Your task to perform on an android device: Search for "acer predator" on walmart.com, select the first entry, and add it to the cart. Image 0: 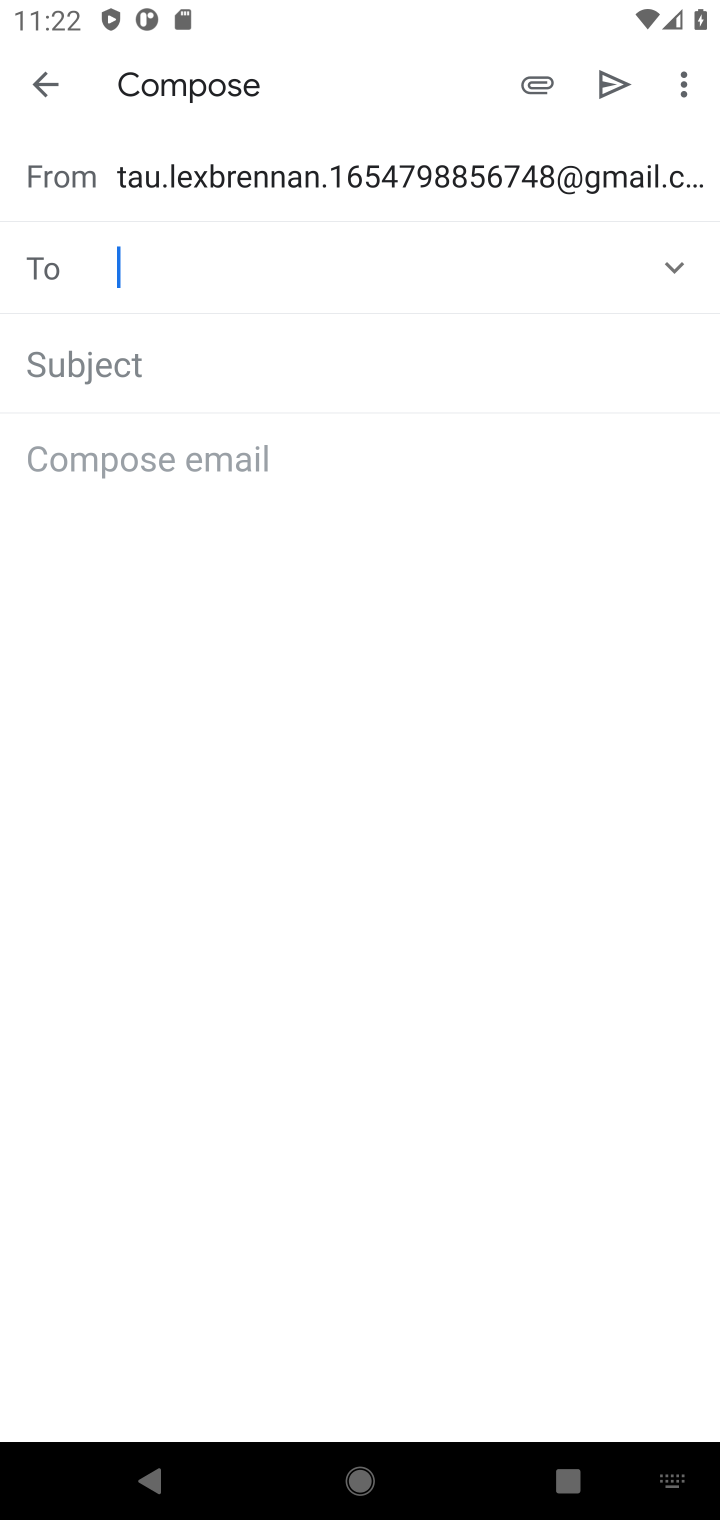
Step 0: press home button
Your task to perform on an android device: Search for "acer predator" on walmart.com, select the first entry, and add it to the cart. Image 1: 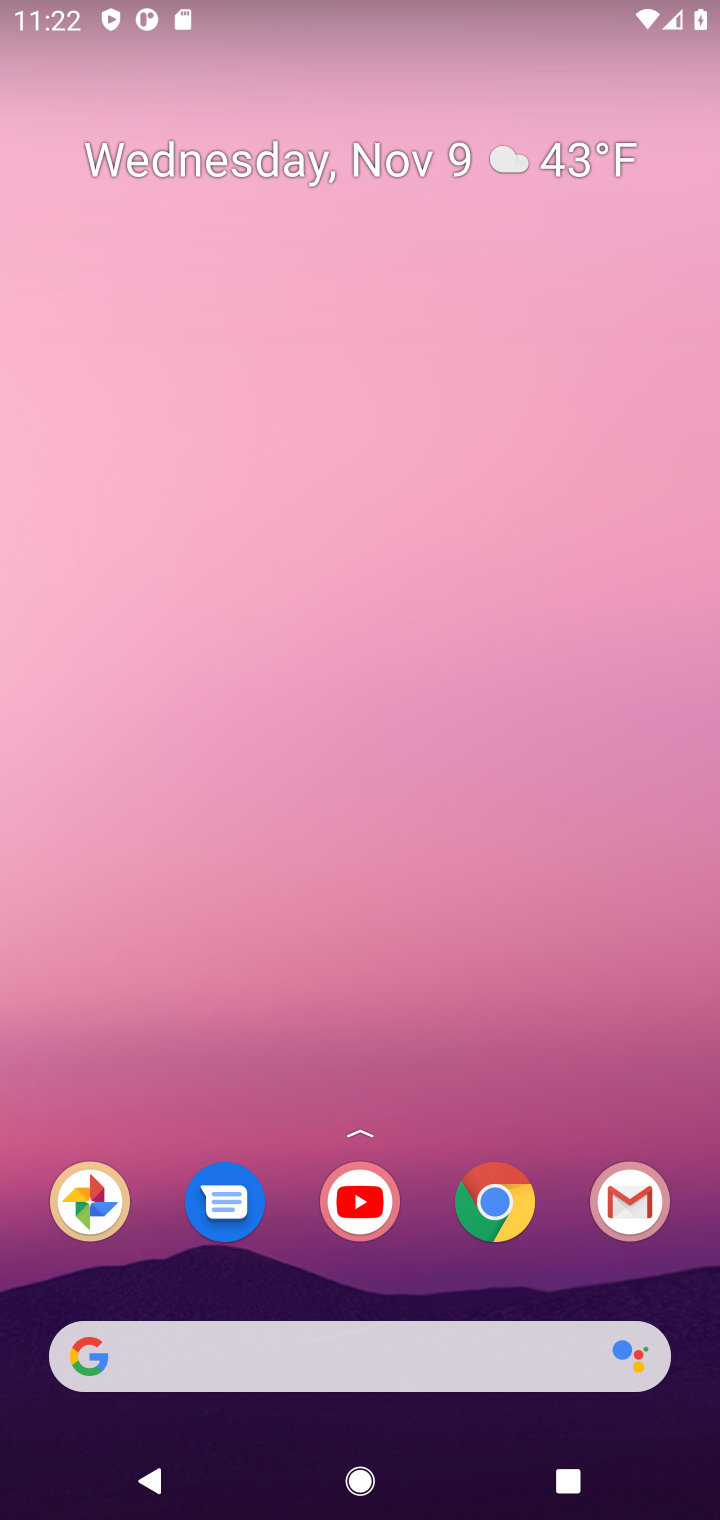
Step 1: click (476, 1197)
Your task to perform on an android device: Search for "acer predator" on walmart.com, select the first entry, and add it to the cart. Image 2: 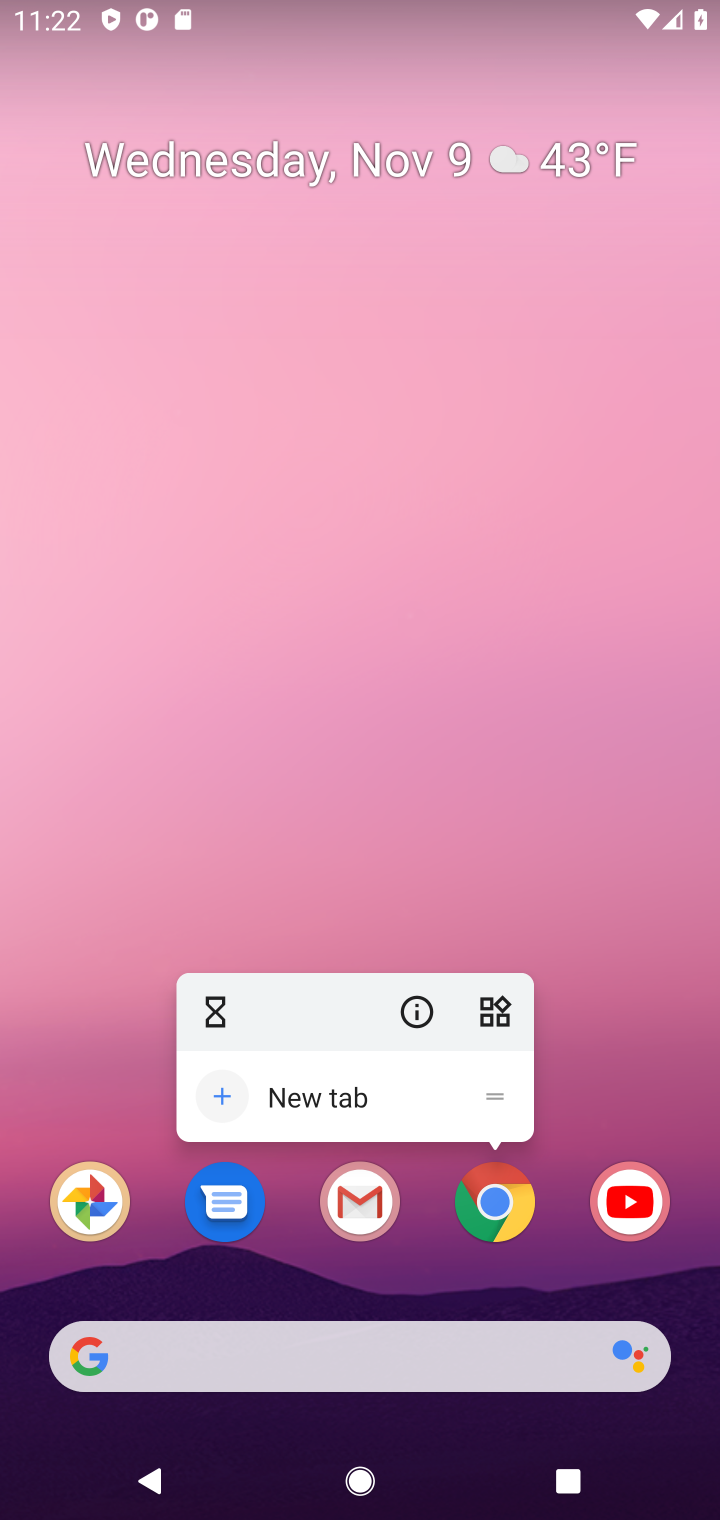
Step 2: click (476, 1197)
Your task to perform on an android device: Search for "acer predator" on walmart.com, select the first entry, and add it to the cart. Image 3: 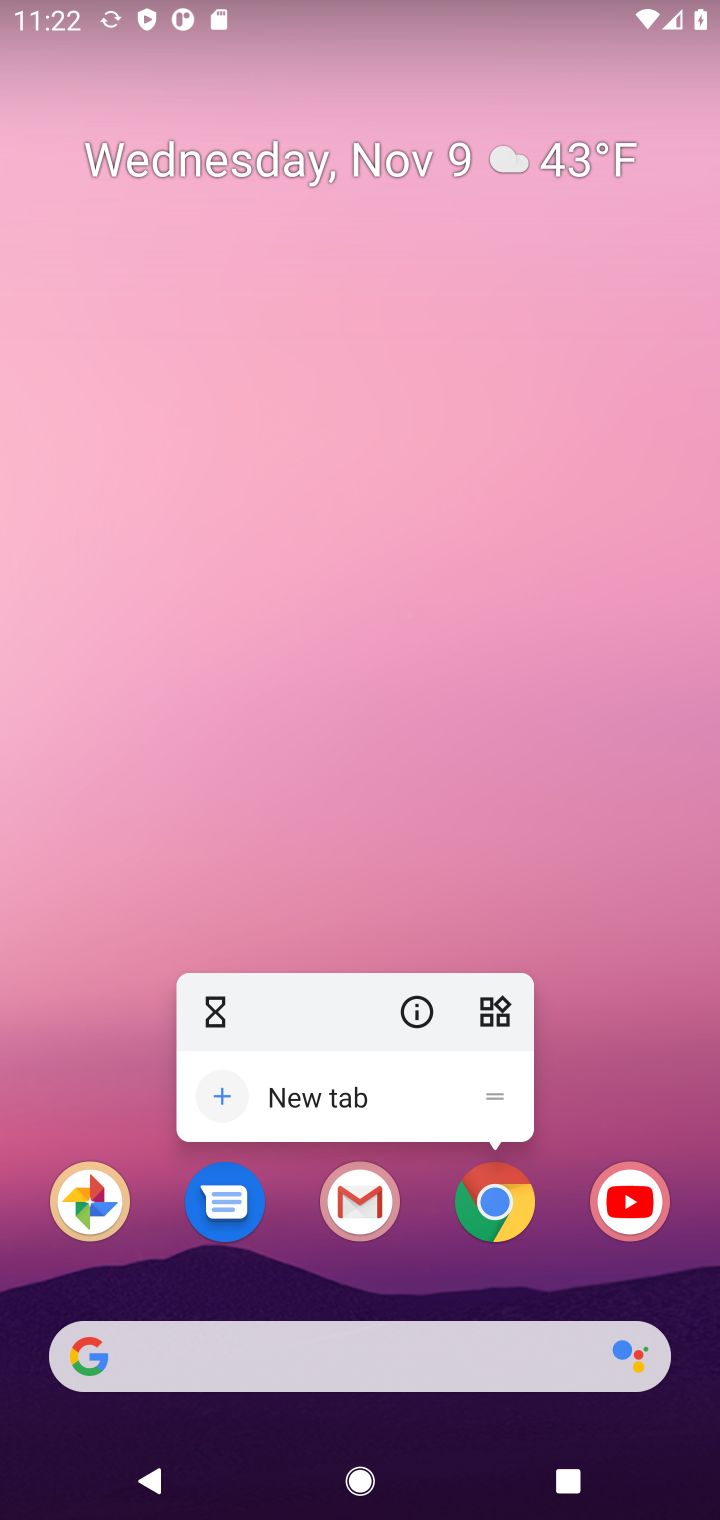
Step 3: click (515, 1217)
Your task to perform on an android device: Search for "acer predator" on walmart.com, select the first entry, and add it to the cart. Image 4: 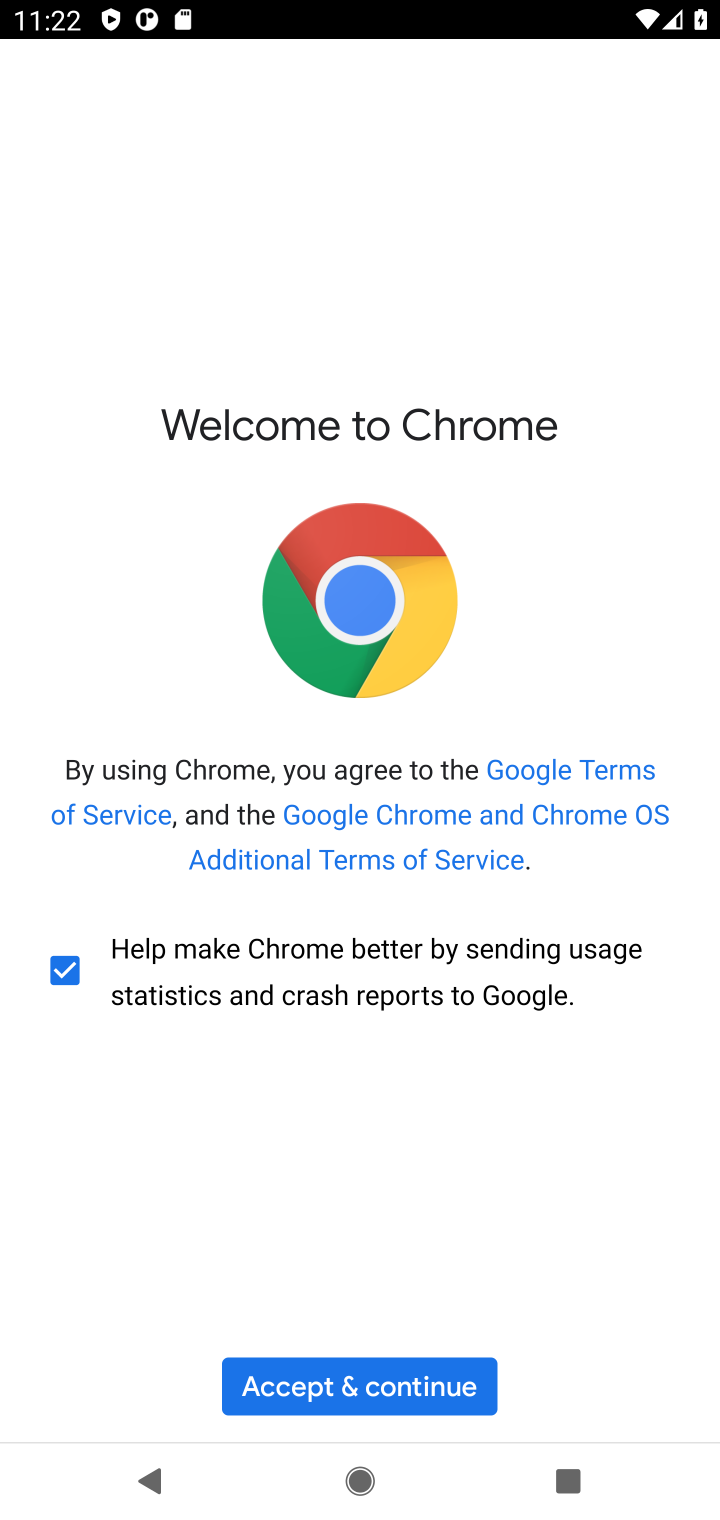
Step 4: click (404, 1381)
Your task to perform on an android device: Search for "acer predator" on walmart.com, select the first entry, and add it to the cart. Image 5: 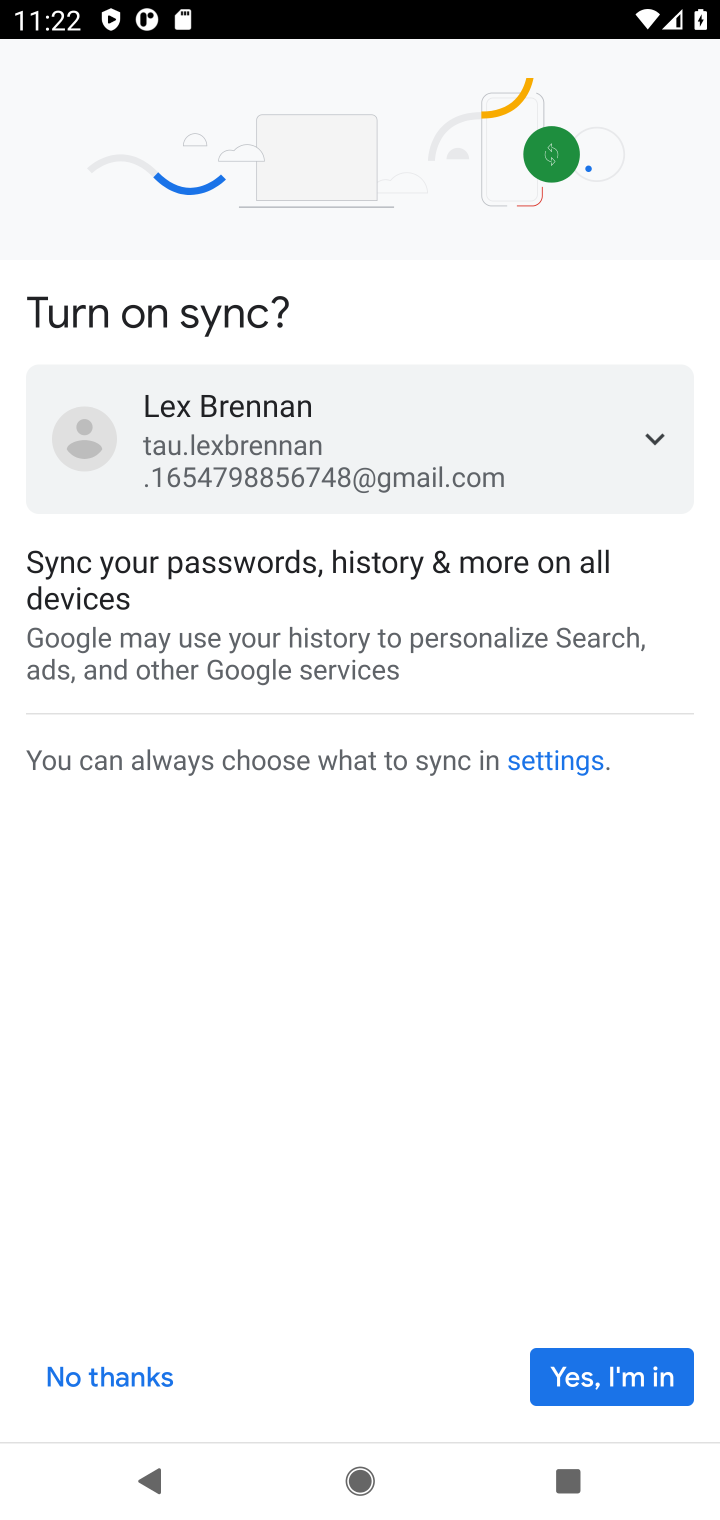
Step 5: click (584, 1381)
Your task to perform on an android device: Search for "acer predator" on walmart.com, select the first entry, and add it to the cart. Image 6: 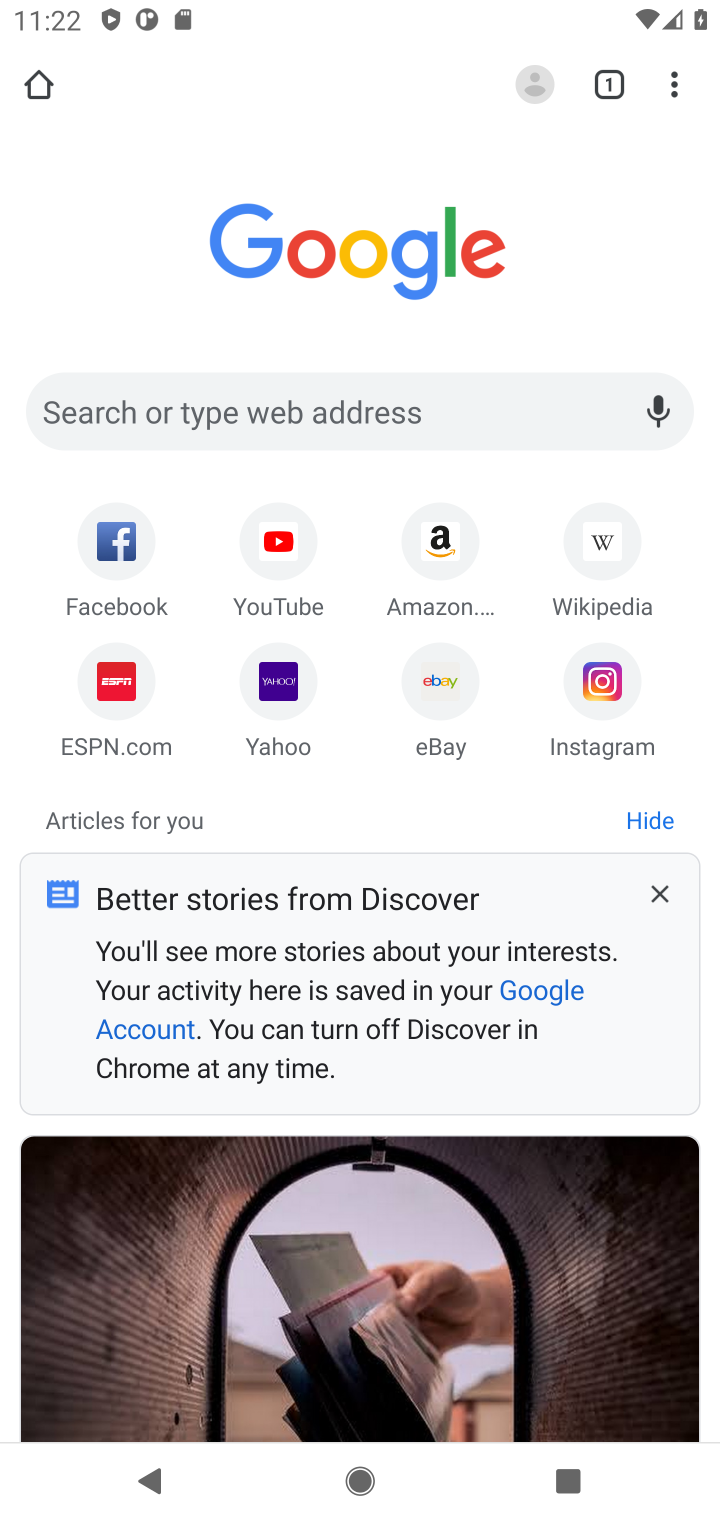
Step 6: click (418, 413)
Your task to perform on an android device: Search for "acer predator" on walmart.com, select the first entry, and add it to the cart. Image 7: 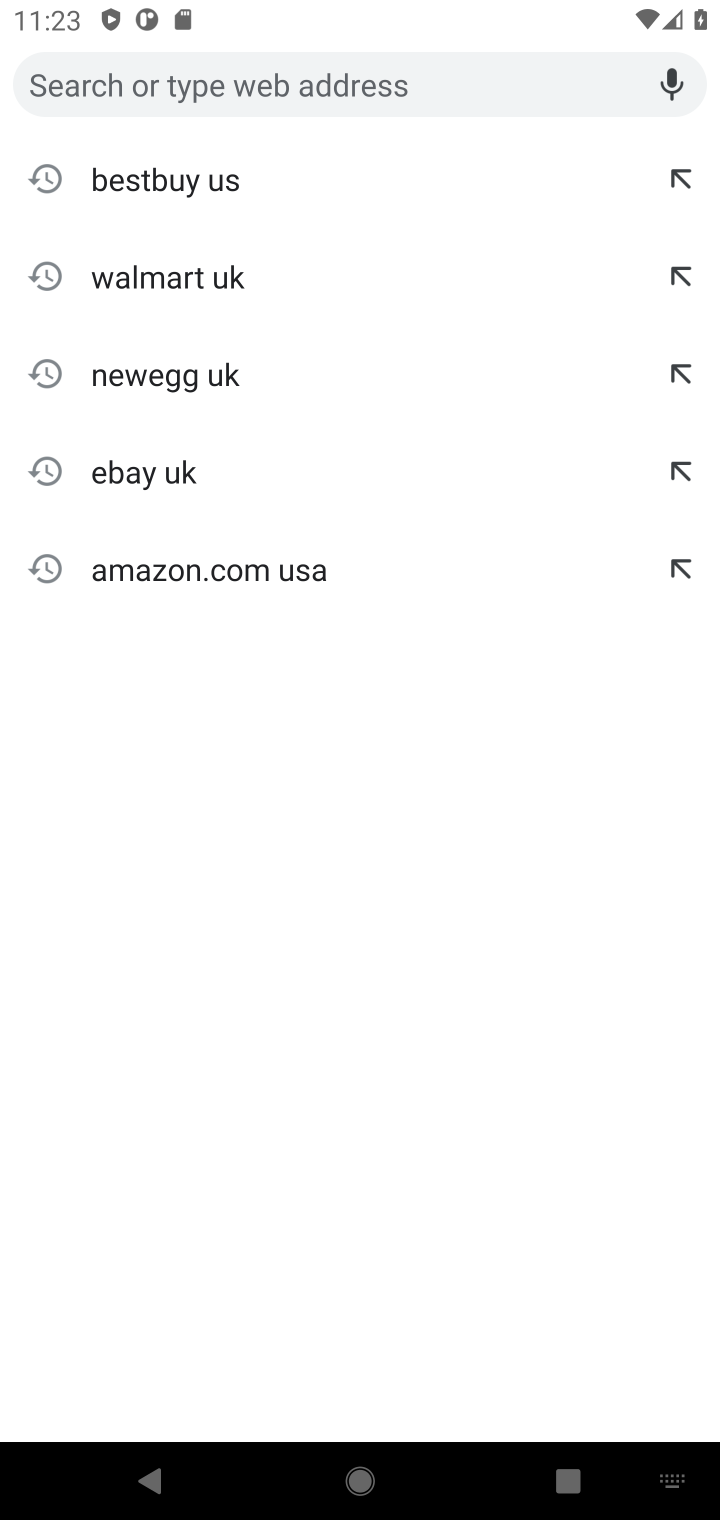
Step 7: click (185, 276)
Your task to perform on an android device: Search for "acer predator" on walmart.com, select the first entry, and add it to the cart. Image 8: 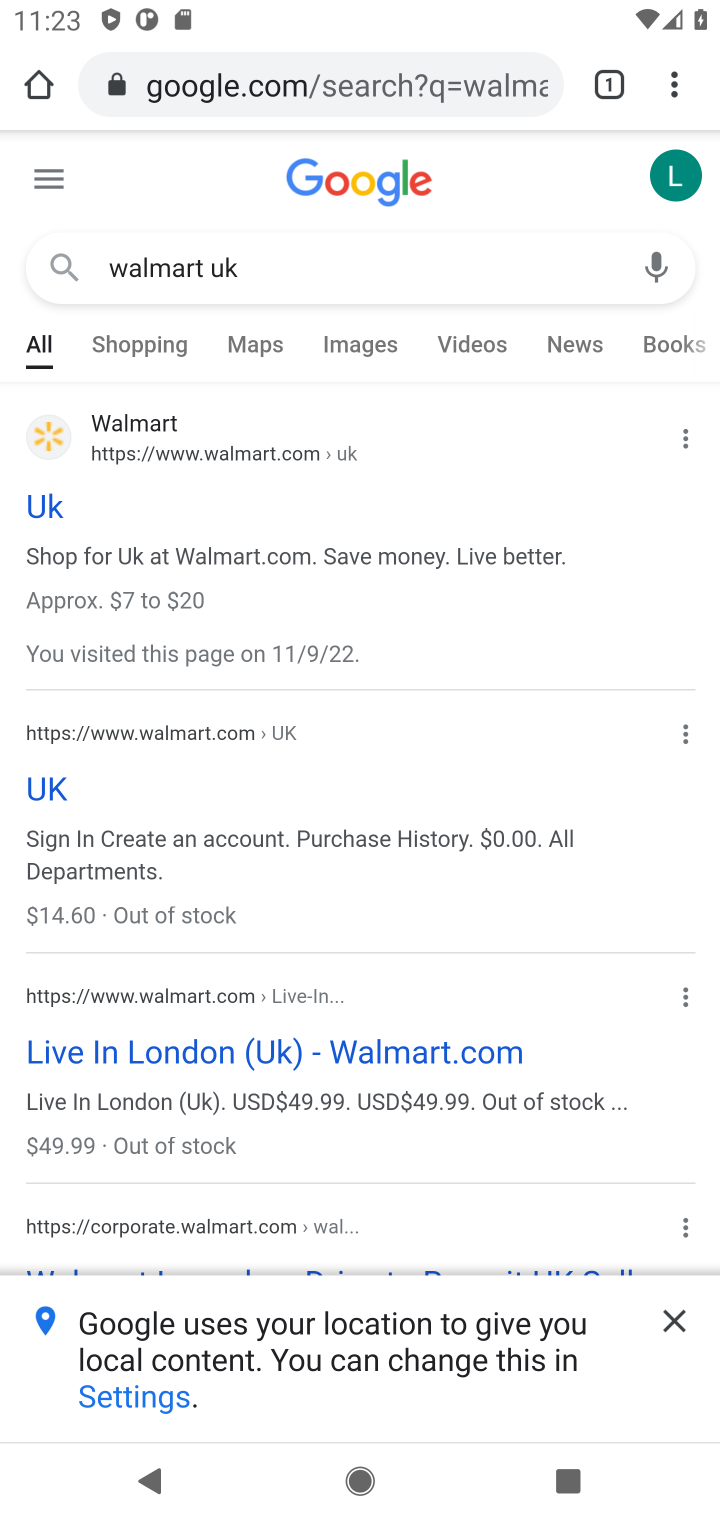
Step 8: click (240, 453)
Your task to perform on an android device: Search for "acer predator" on walmart.com, select the first entry, and add it to the cart. Image 9: 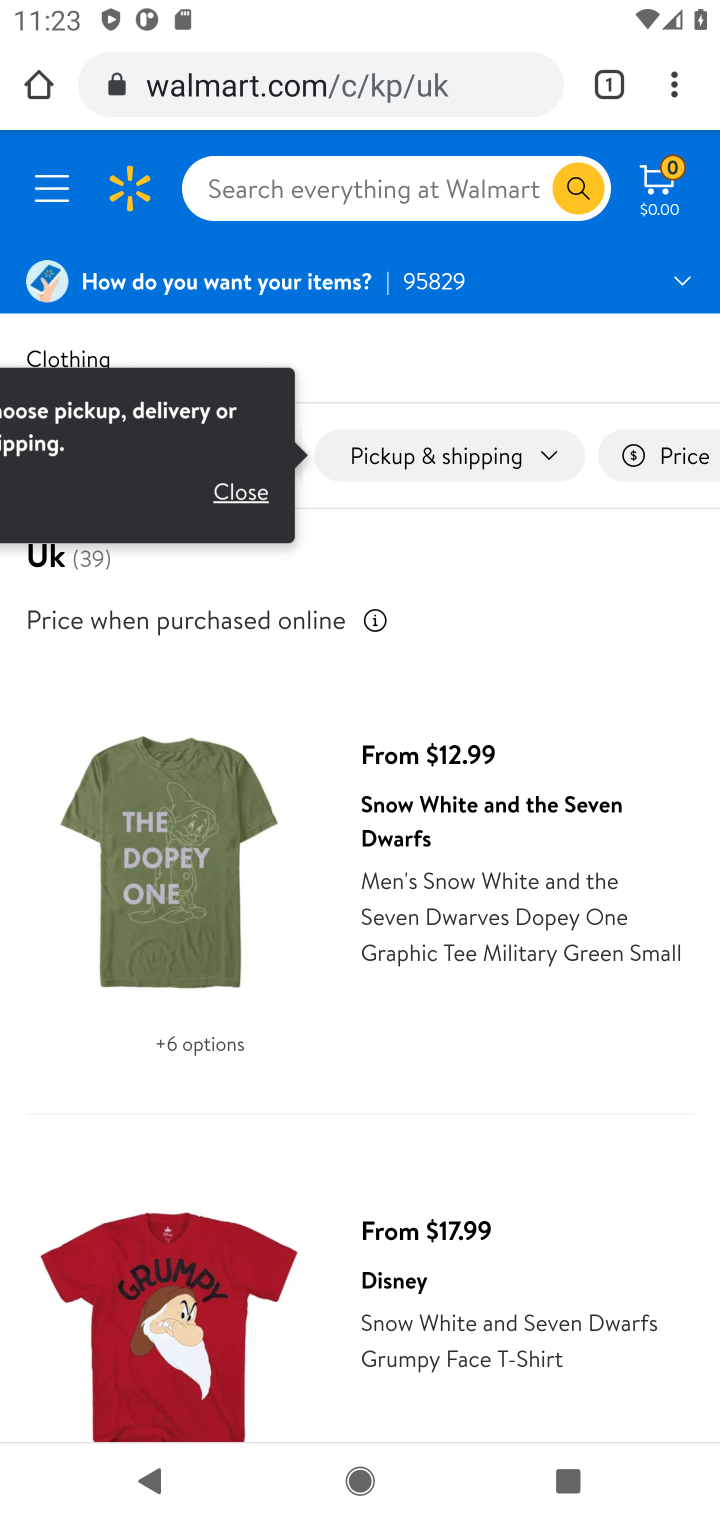
Step 9: click (386, 178)
Your task to perform on an android device: Search for "acer predator" on walmart.com, select the first entry, and add it to the cart. Image 10: 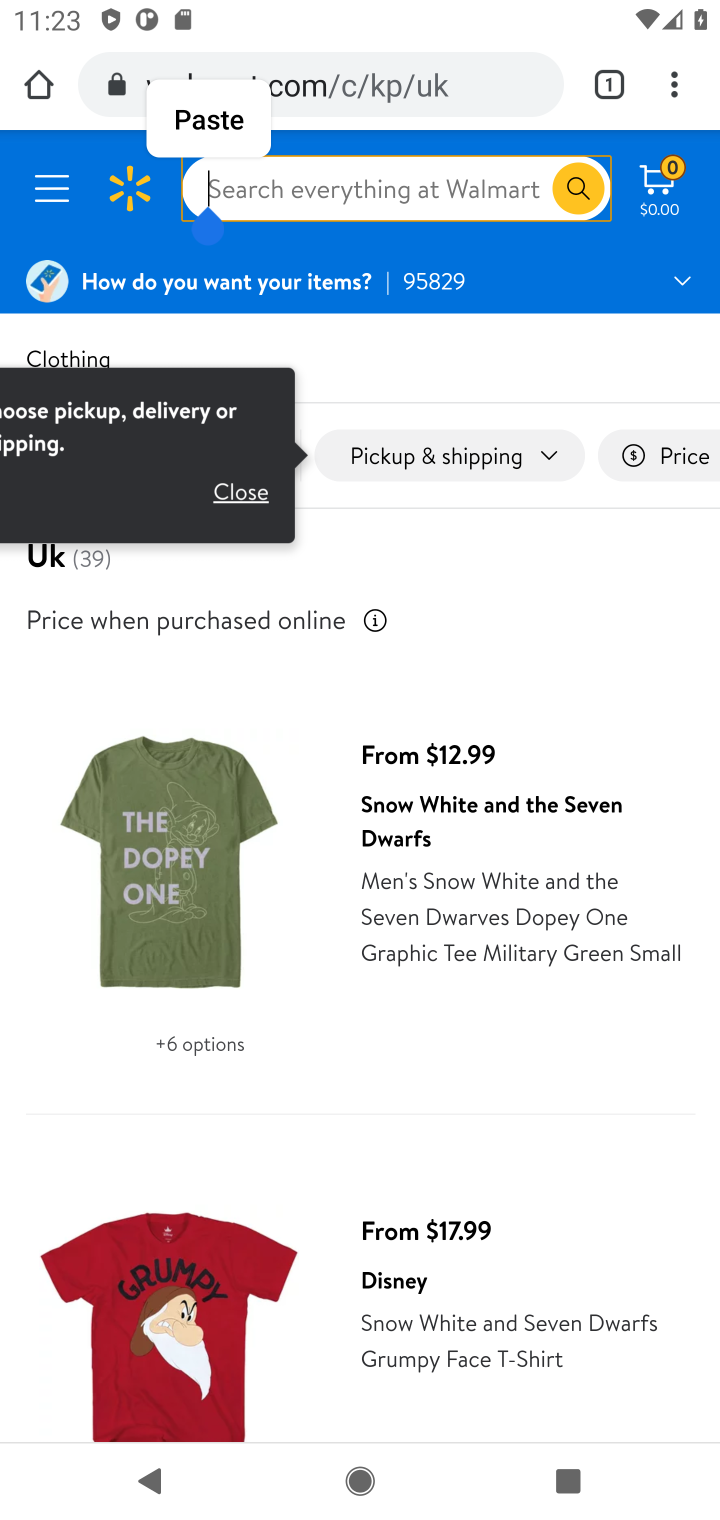
Step 10: press enter
Your task to perform on an android device: Search for "acer predator" on walmart.com, select the first entry, and add it to the cart. Image 11: 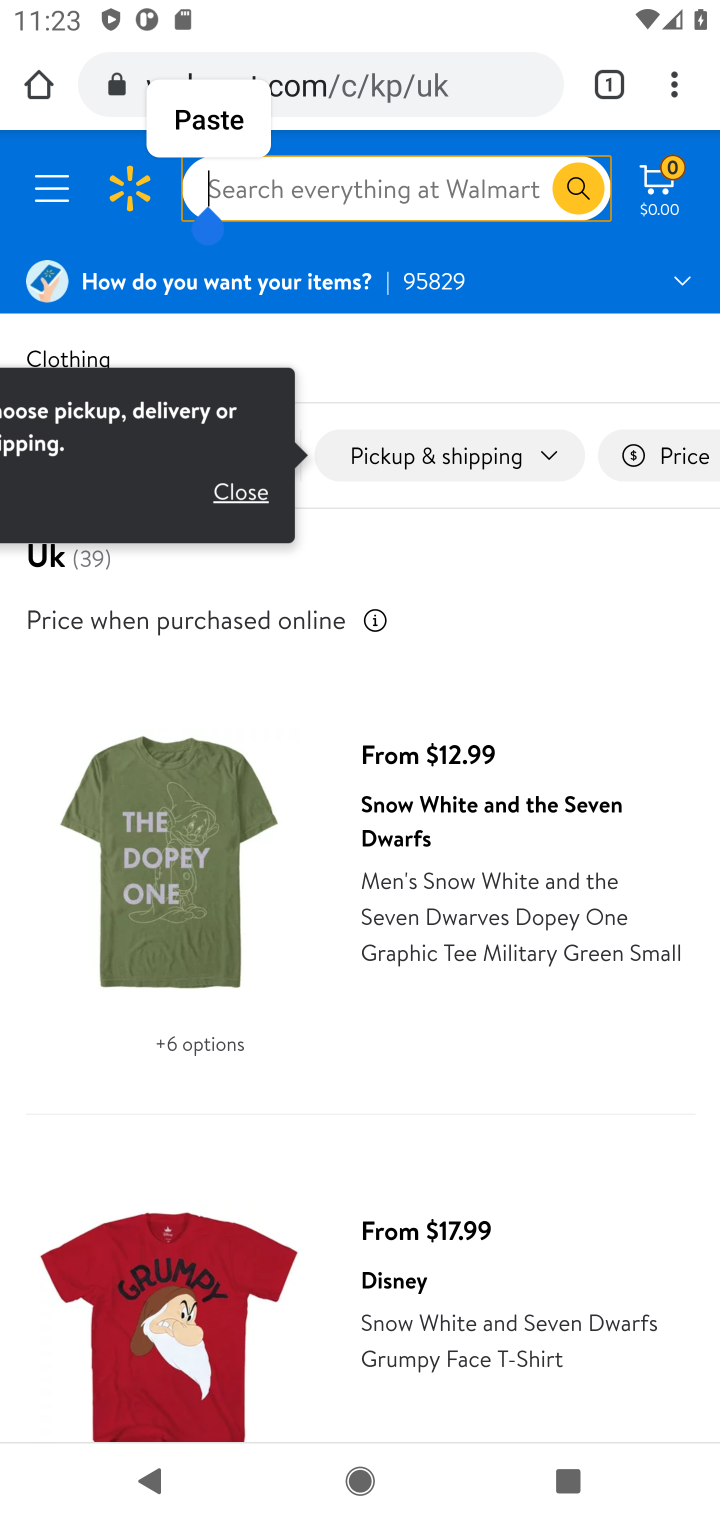
Step 11: type "acer predator"
Your task to perform on an android device: Search for "acer predator" on walmart.com, select the first entry, and add it to the cart. Image 12: 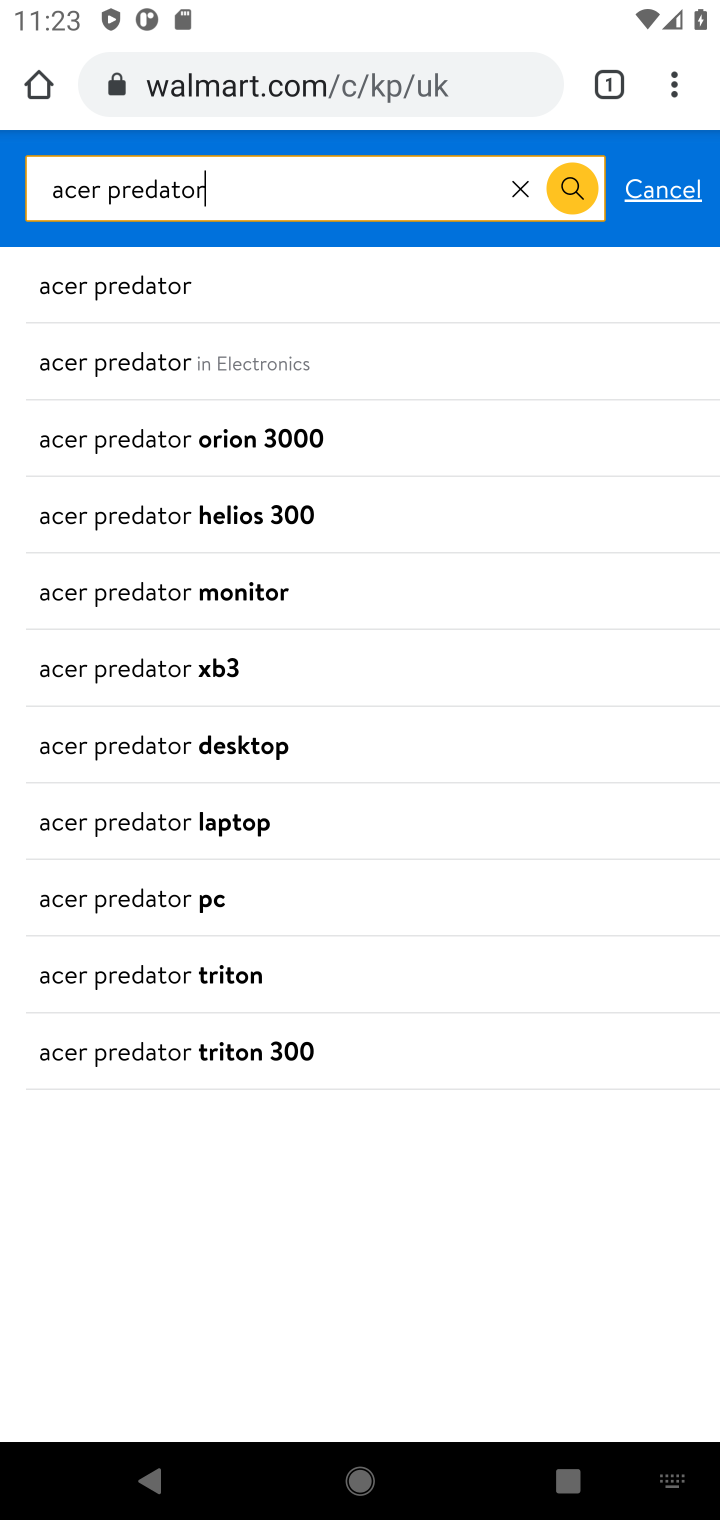
Step 12: click (147, 288)
Your task to perform on an android device: Search for "acer predator" on walmart.com, select the first entry, and add it to the cart. Image 13: 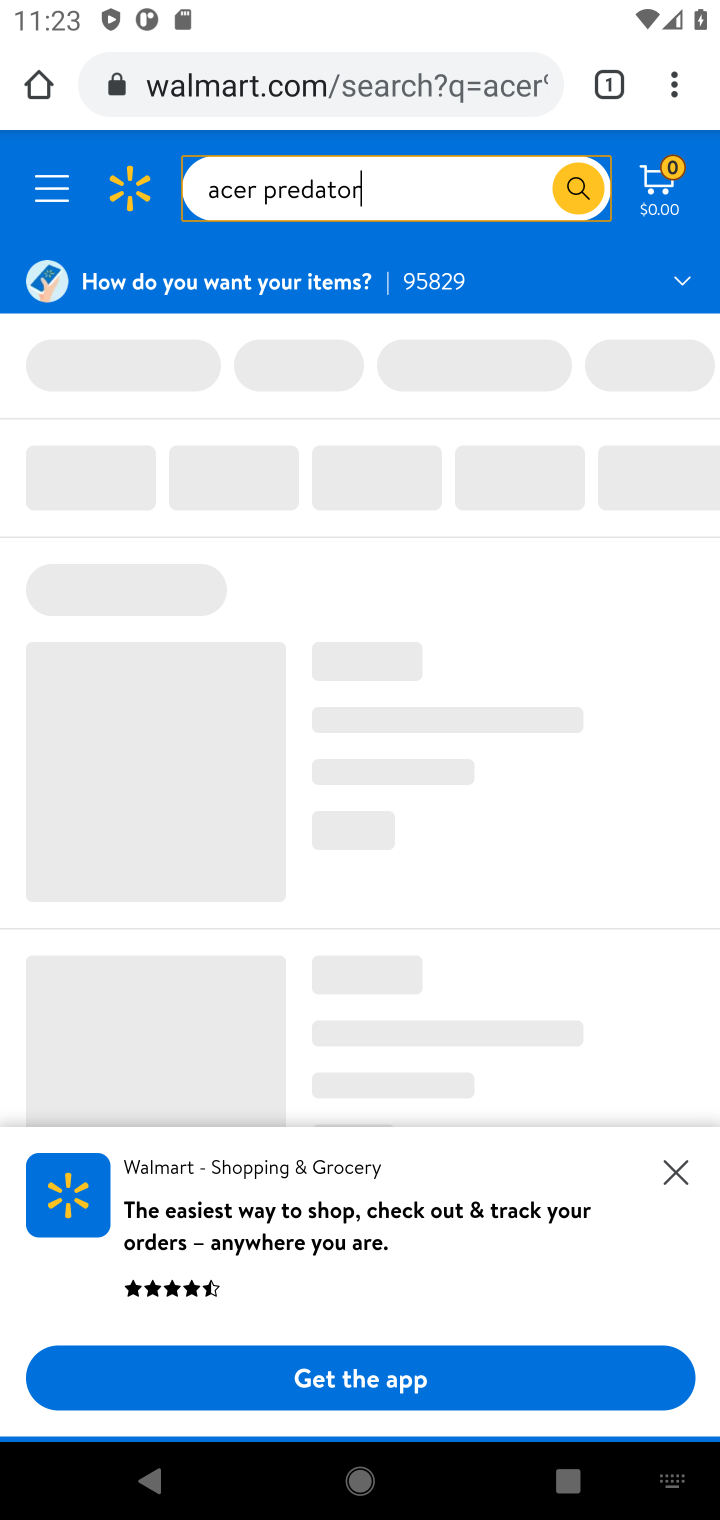
Step 13: click (673, 1155)
Your task to perform on an android device: Search for "acer predator" on walmart.com, select the first entry, and add it to the cart. Image 14: 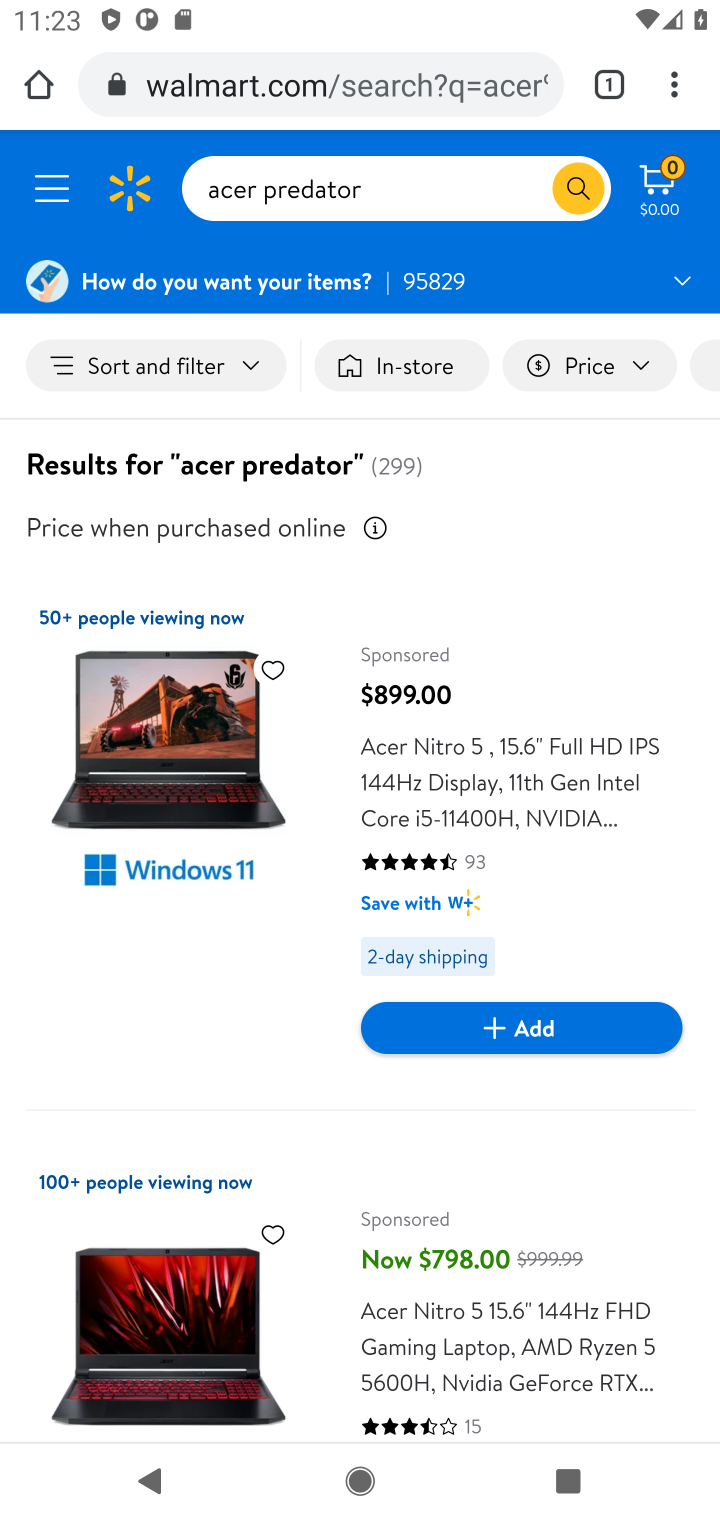
Step 14: drag from (554, 1036) to (476, 397)
Your task to perform on an android device: Search for "acer predator" on walmart.com, select the first entry, and add it to the cart. Image 15: 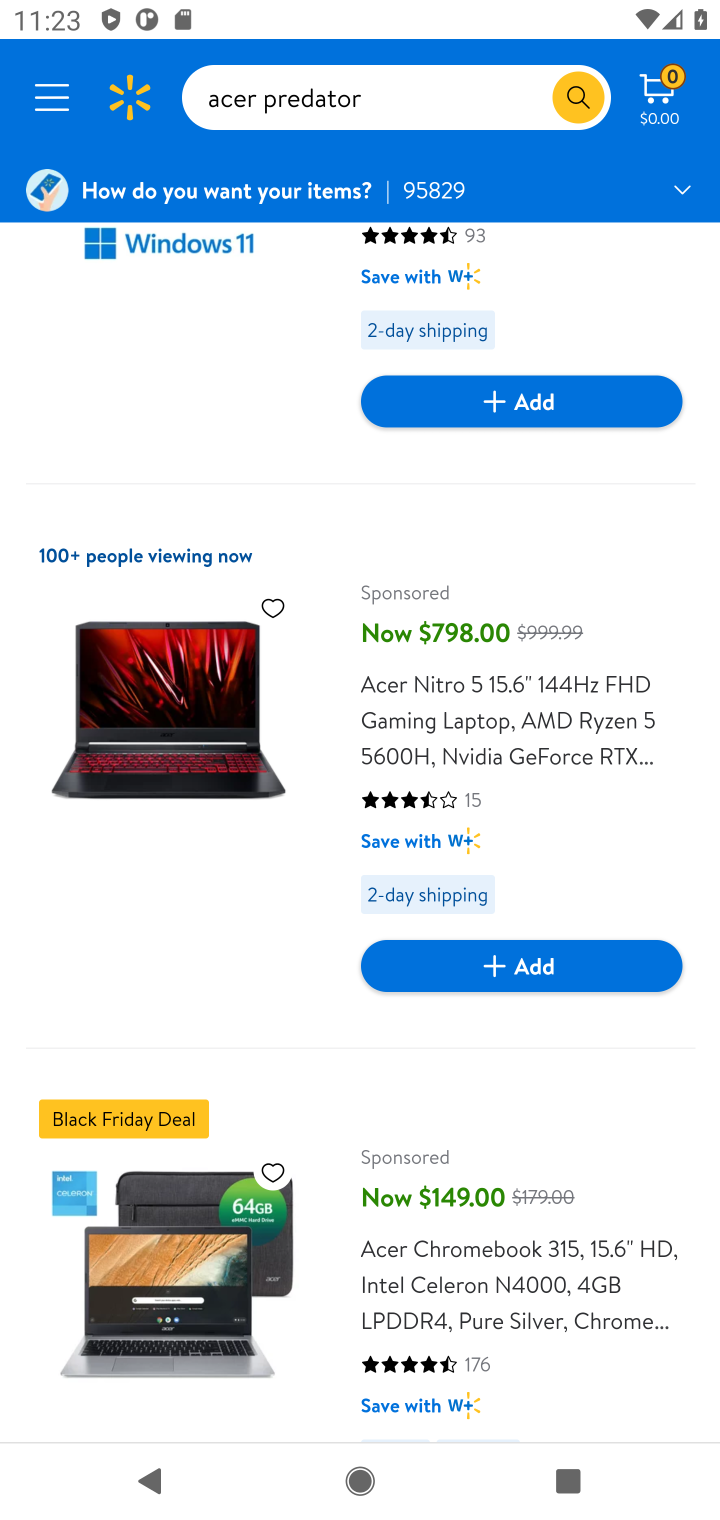
Step 15: drag from (581, 1373) to (529, 448)
Your task to perform on an android device: Search for "acer predator" on walmart.com, select the first entry, and add it to the cart. Image 16: 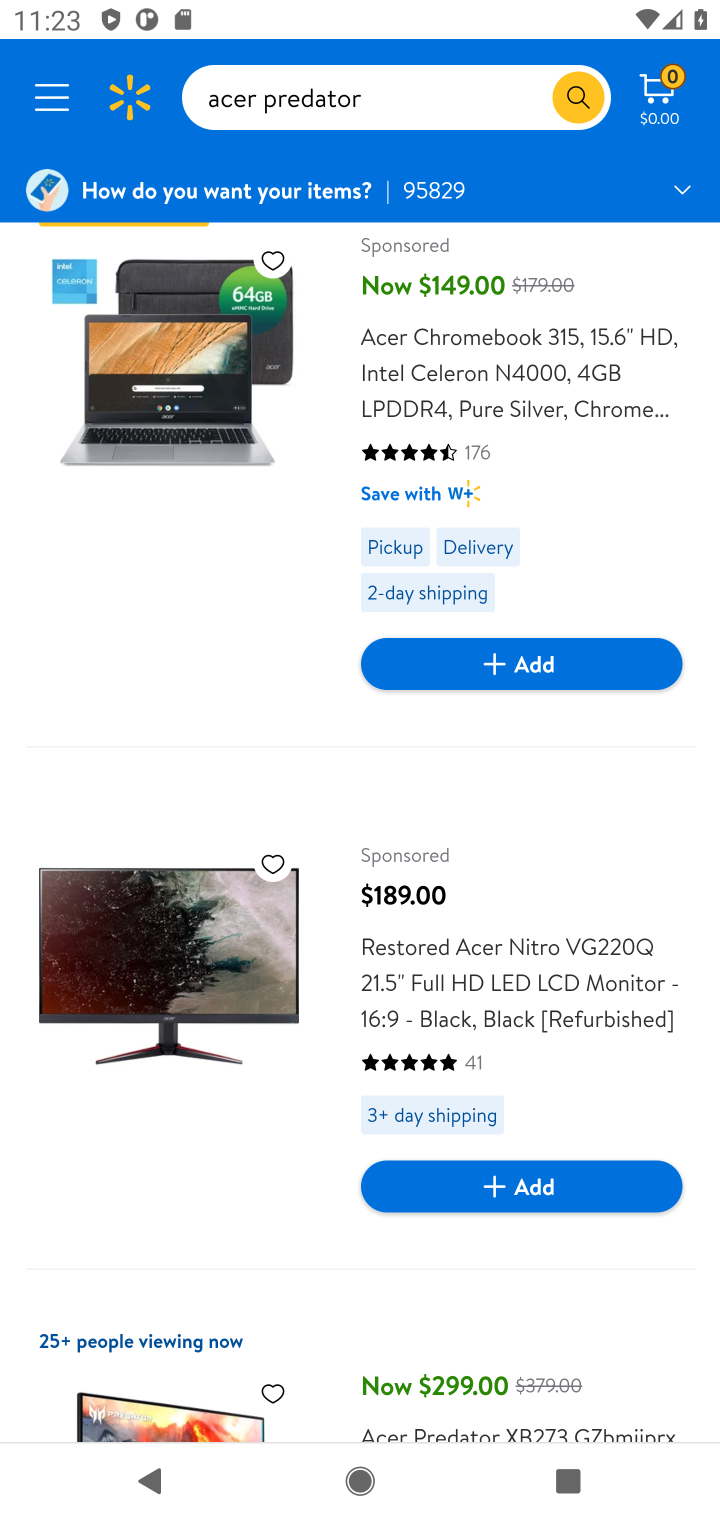
Step 16: drag from (638, 1275) to (589, 584)
Your task to perform on an android device: Search for "acer predator" on walmart.com, select the first entry, and add it to the cart. Image 17: 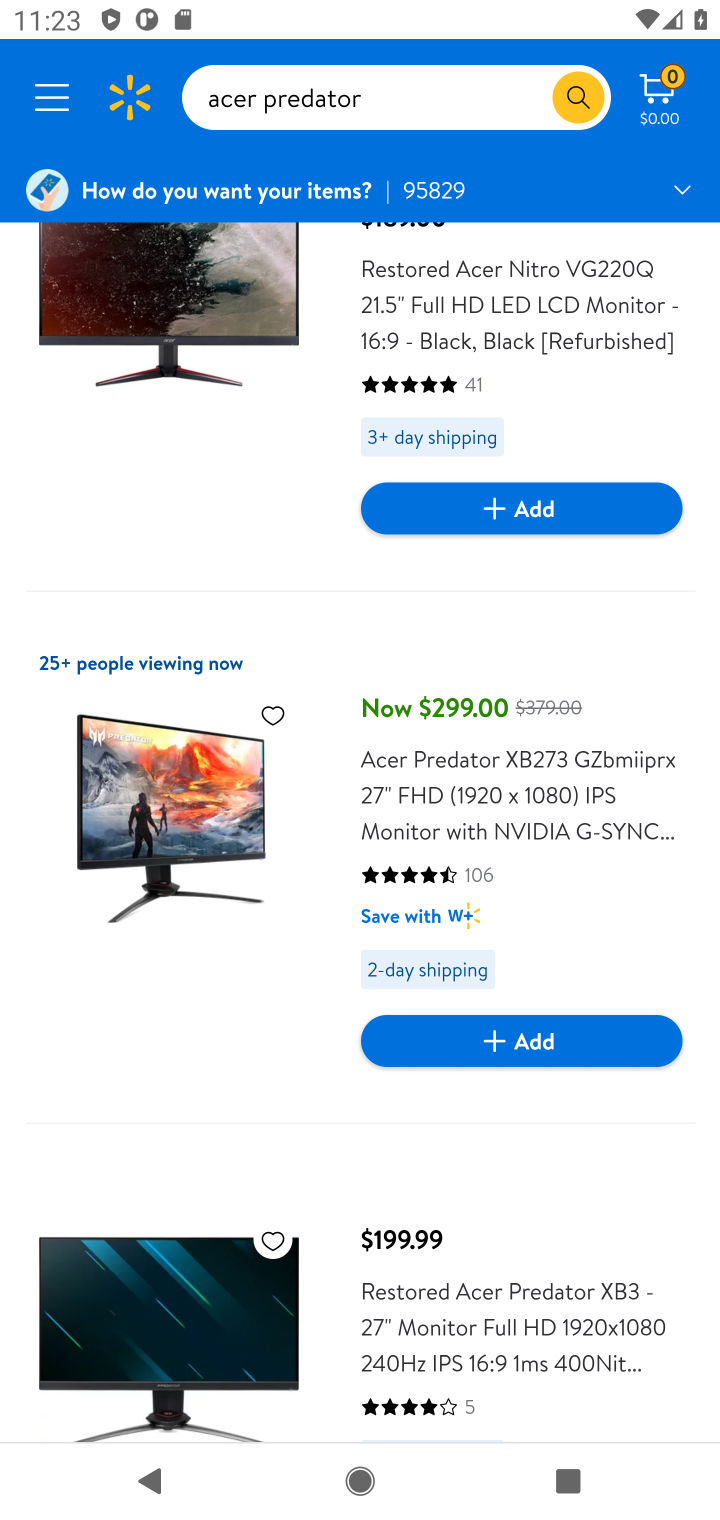
Step 17: click (203, 1337)
Your task to perform on an android device: Search for "acer predator" on walmart.com, select the first entry, and add it to the cart. Image 18: 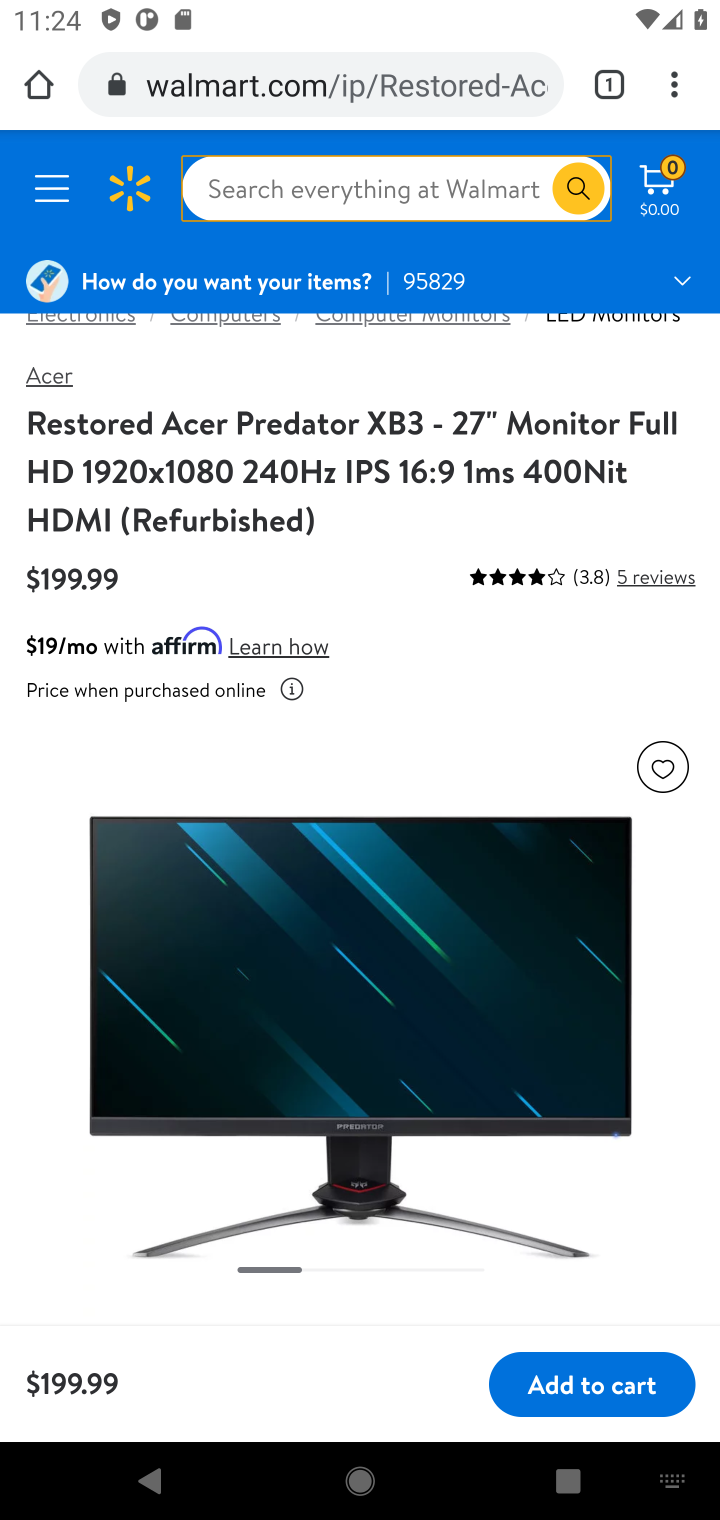
Step 18: click (588, 1376)
Your task to perform on an android device: Search for "acer predator" on walmart.com, select the first entry, and add it to the cart. Image 19: 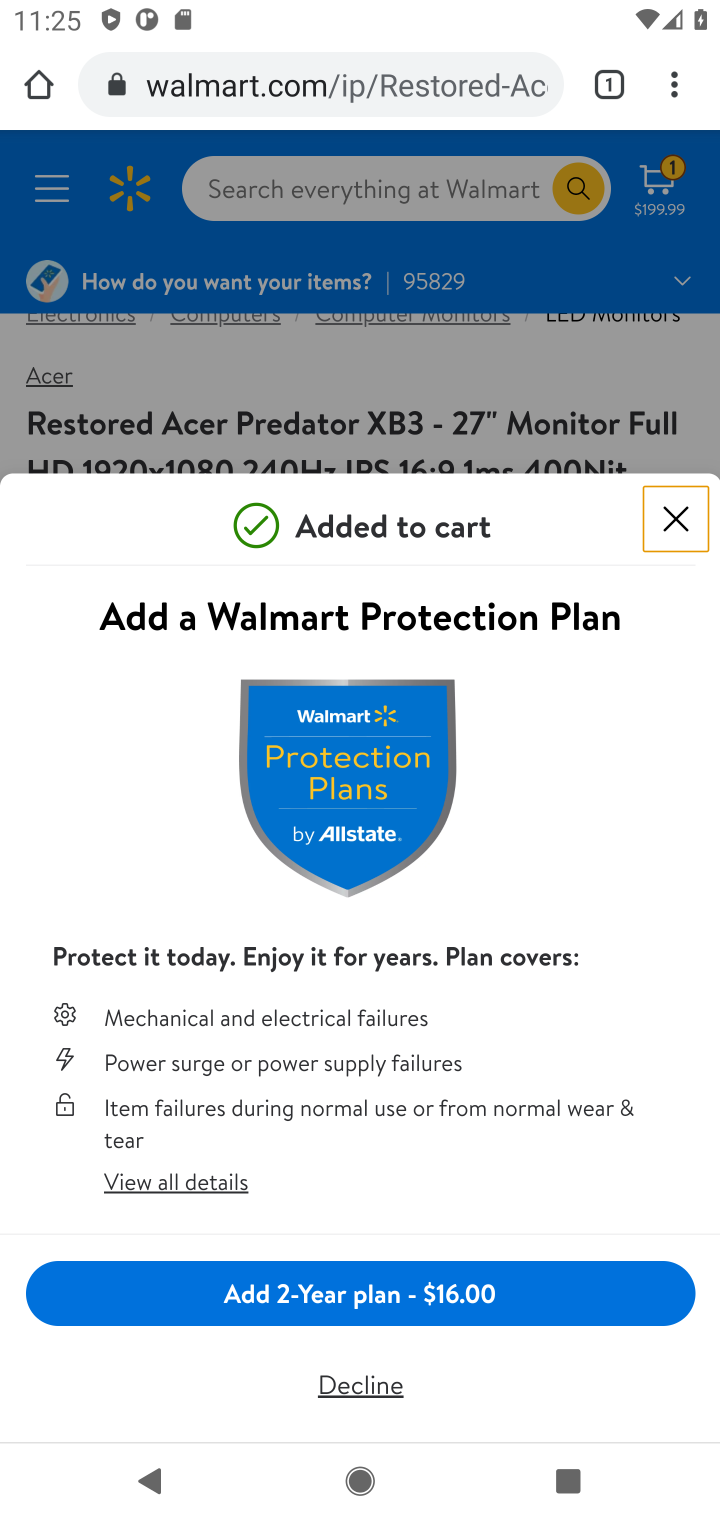
Step 19: task complete